Your task to perform on an android device: When is my next meeting? Image 0: 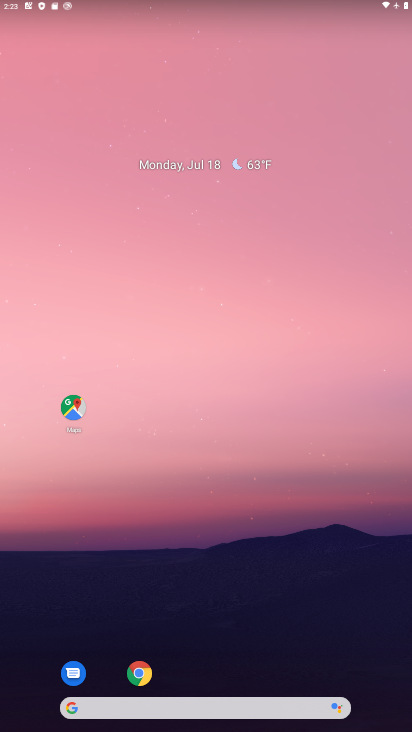
Step 0: drag from (229, 659) to (208, 278)
Your task to perform on an android device: When is my next meeting? Image 1: 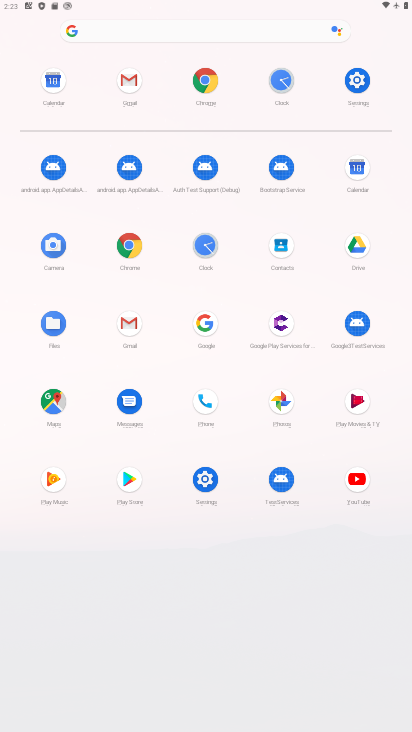
Step 1: click (353, 160)
Your task to perform on an android device: When is my next meeting? Image 2: 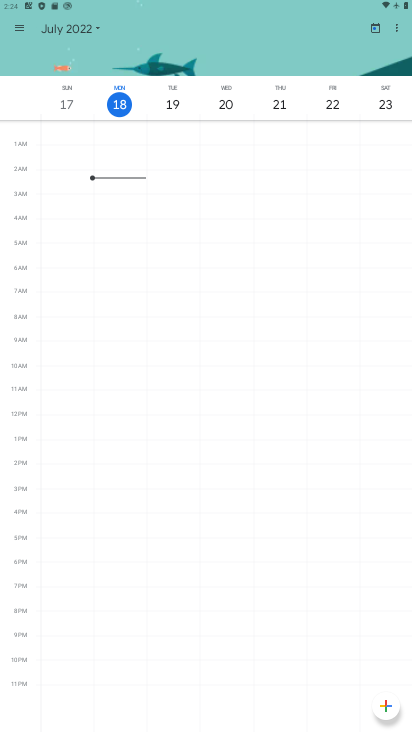
Step 2: click (163, 110)
Your task to perform on an android device: When is my next meeting? Image 3: 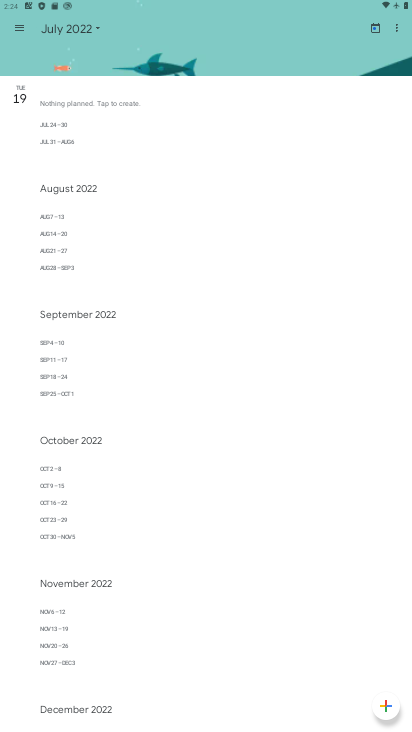
Step 3: click (59, 110)
Your task to perform on an android device: When is my next meeting? Image 4: 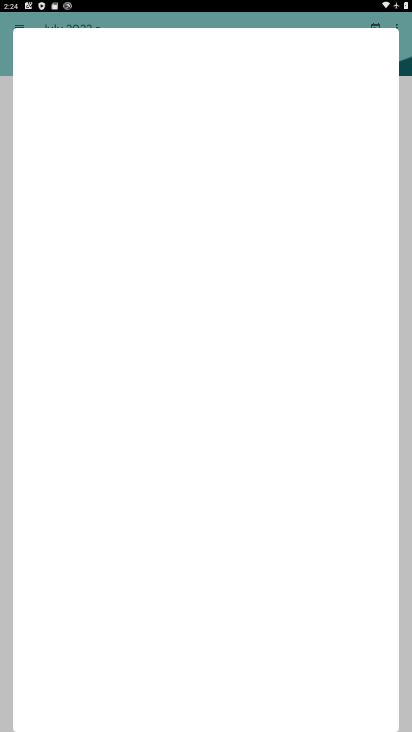
Step 4: click (59, 119)
Your task to perform on an android device: When is my next meeting? Image 5: 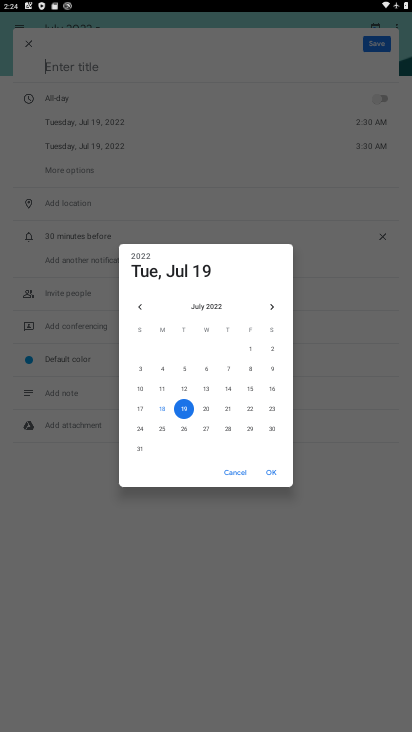
Step 5: click (268, 99)
Your task to perform on an android device: When is my next meeting? Image 6: 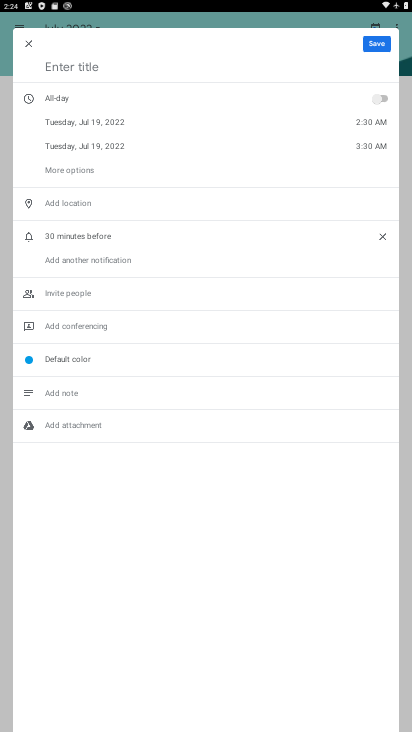
Step 6: task complete